Your task to perform on an android device: open chrome and create a bookmark for the current page Image 0: 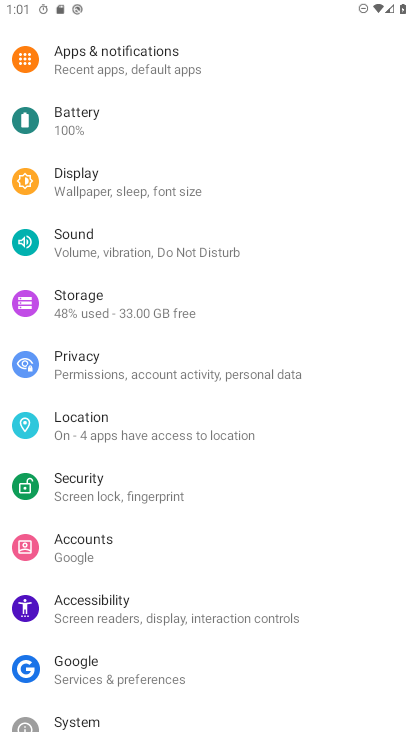
Step 0: press home button
Your task to perform on an android device: open chrome and create a bookmark for the current page Image 1: 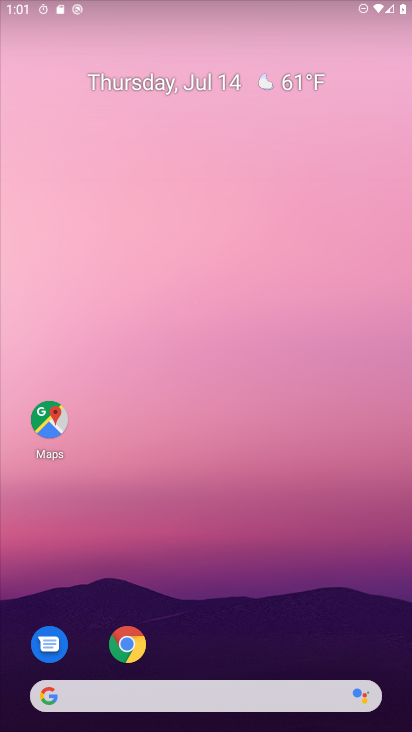
Step 1: drag from (332, 580) to (227, 71)
Your task to perform on an android device: open chrome and create a bookmark for the current page Image 2: 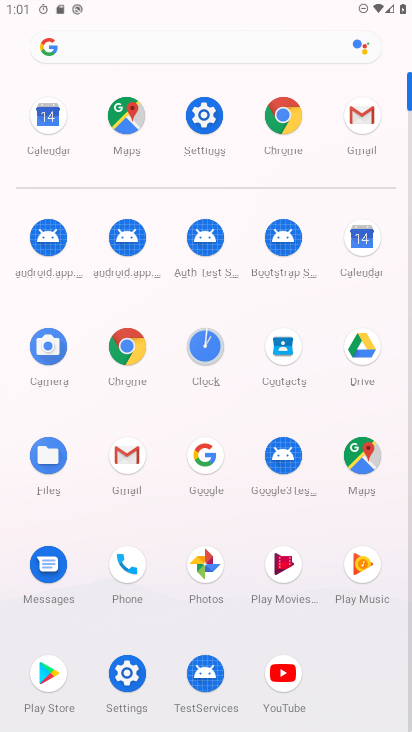
Step 2: click (286, 118)
Your task to perform on an android device: open chrome and create a bookmark for the current page Image 3: 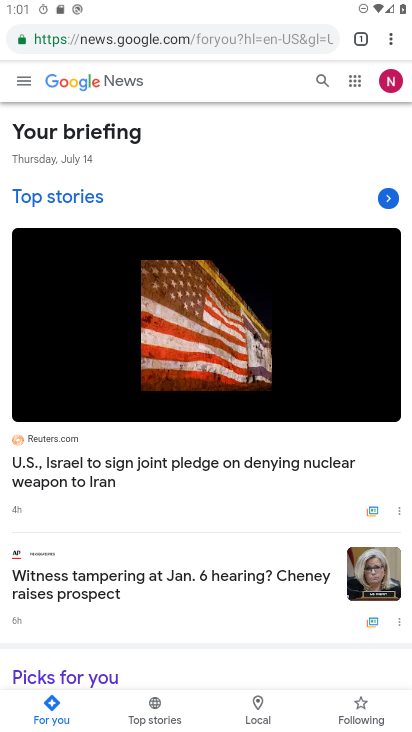
Step 3: task complete